Your task to perform on an android device: Open settings Image 0: 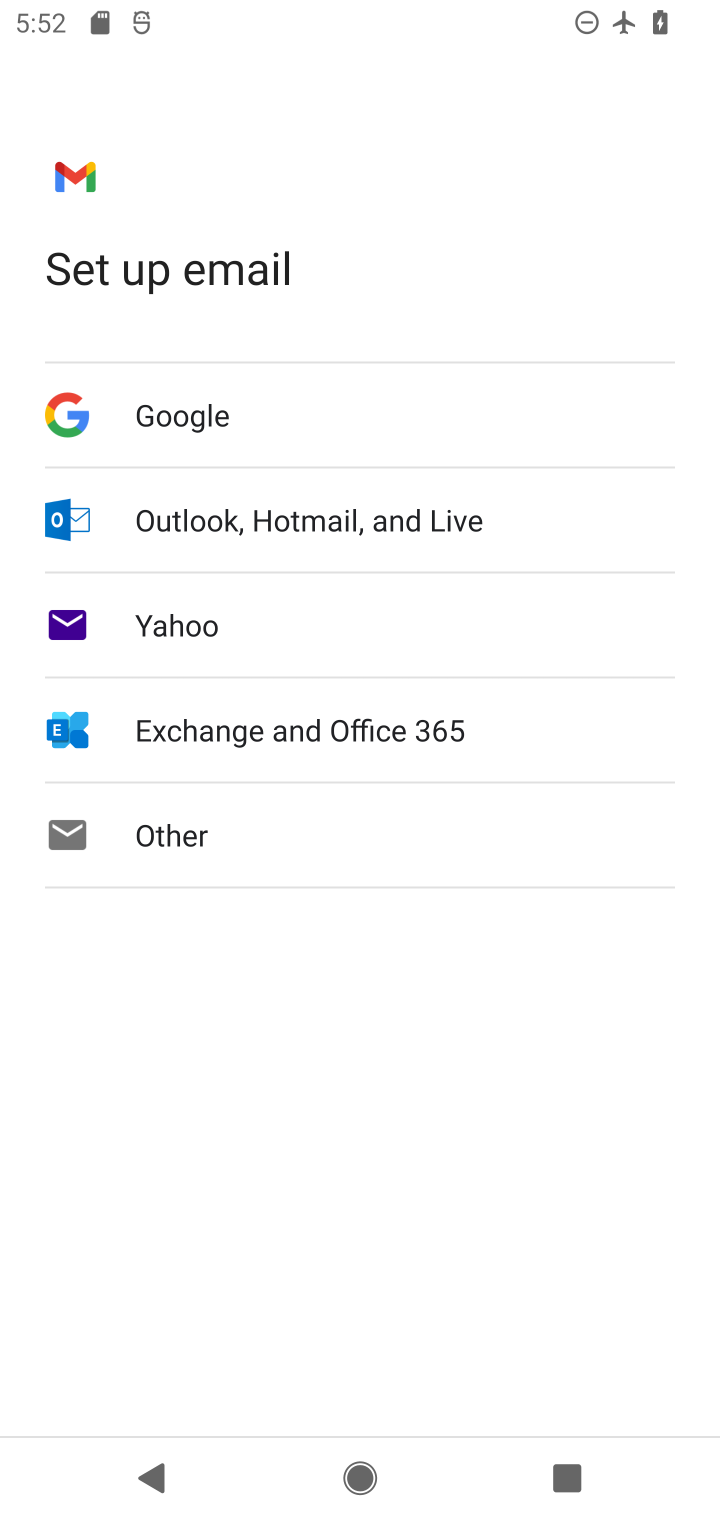
Step 0: press home button
Your task to perform on an android device: Open settings Image 1: 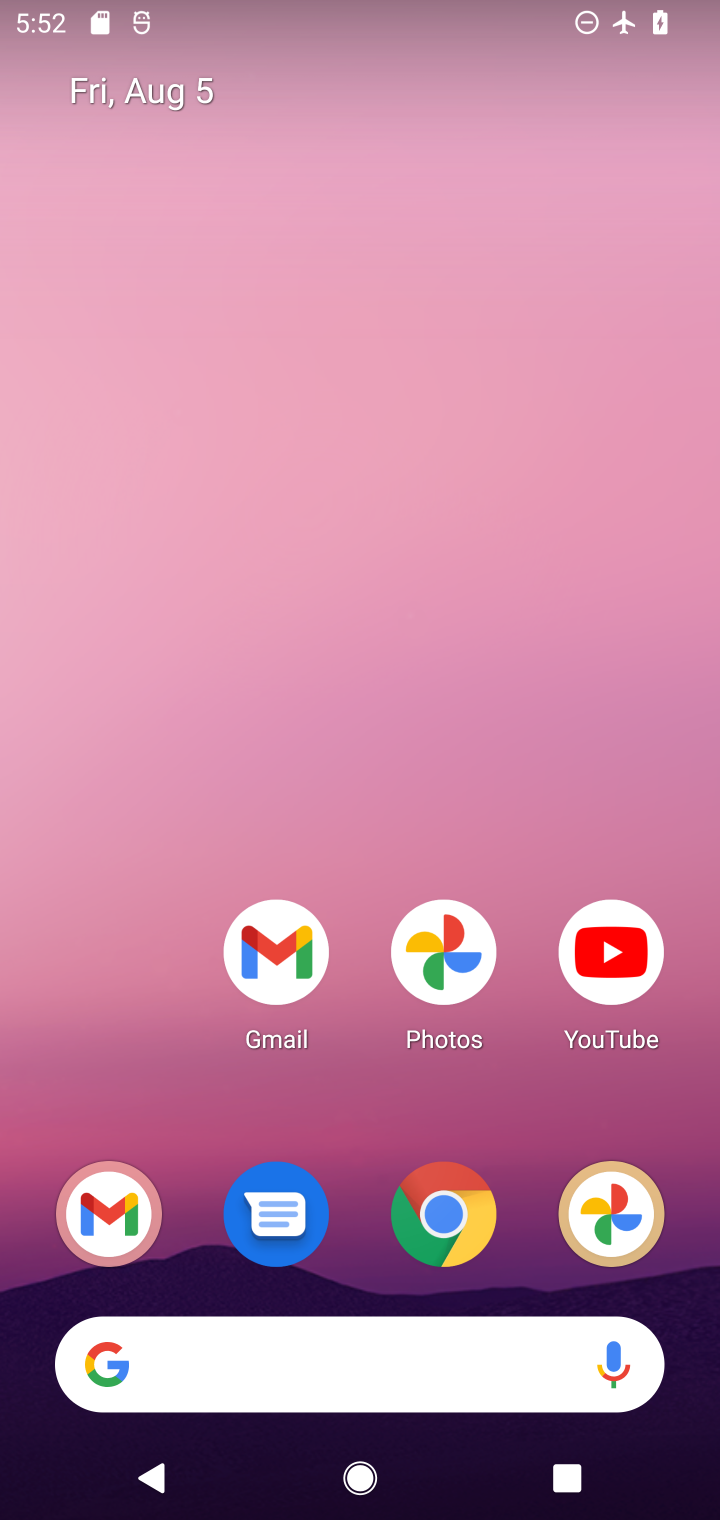
Step 1: drag from (175, 1028) to (356, 0)
Your task to perform on an android device: Open settings Image 2: 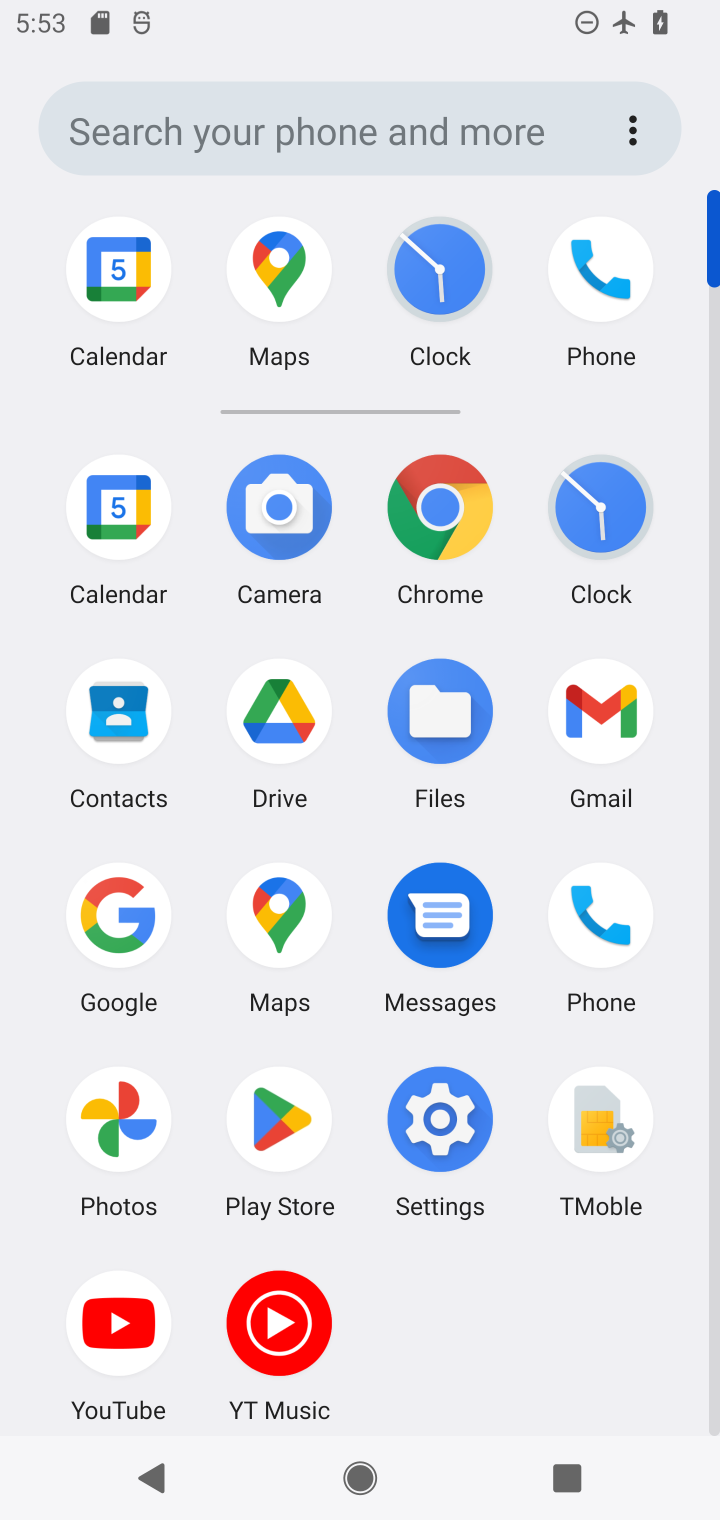
Step 2: click (463, 1128)
Your task to perform on an android device: Open settings Image 3: 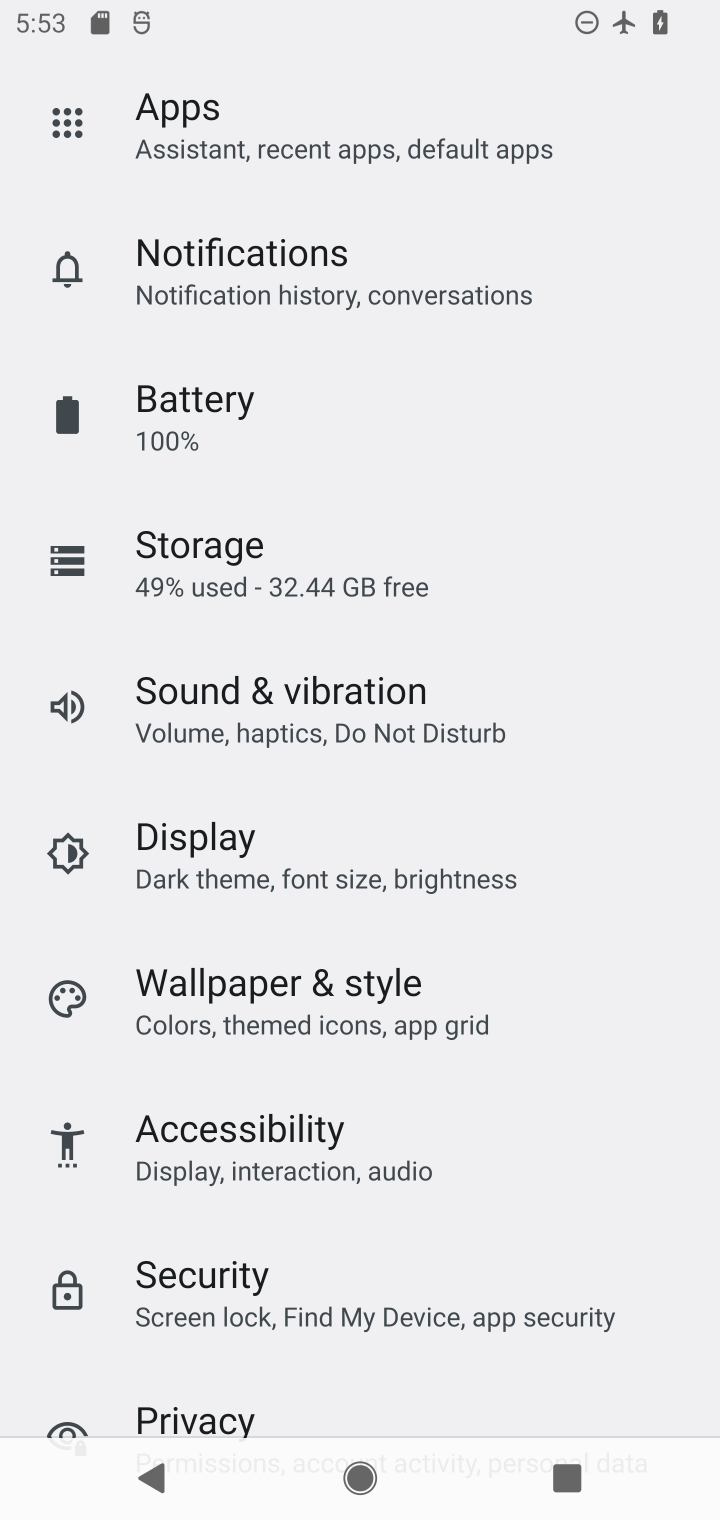
Step 3: task complete